Your task to perform on an android device: turn on improve location accuracy Image 0: 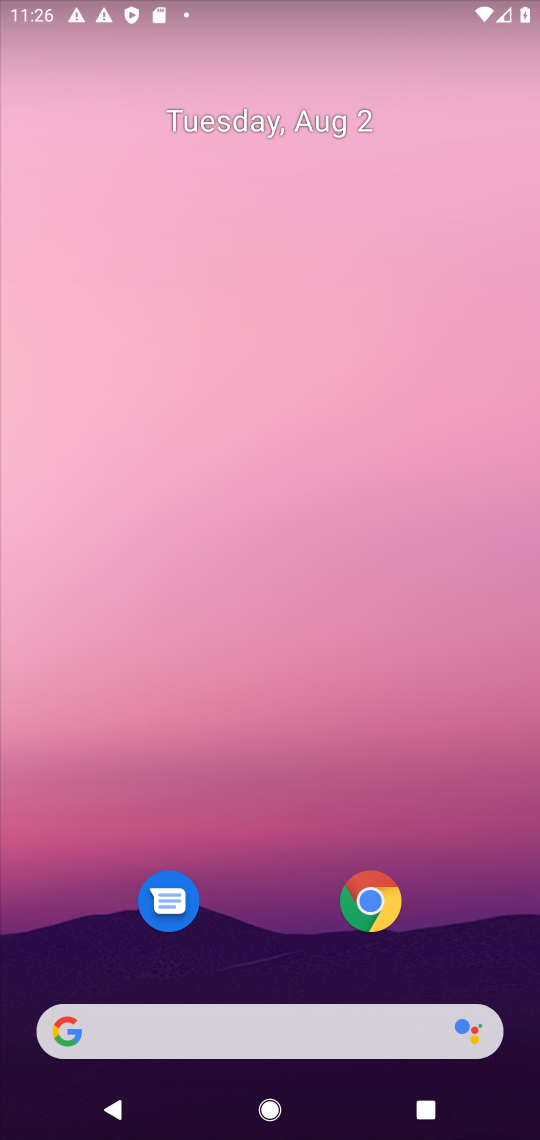
Step 0: drag from (511, 1027) to (430, 128)
Your task to perform on an android device: turn on improve location accuracy Image 1: 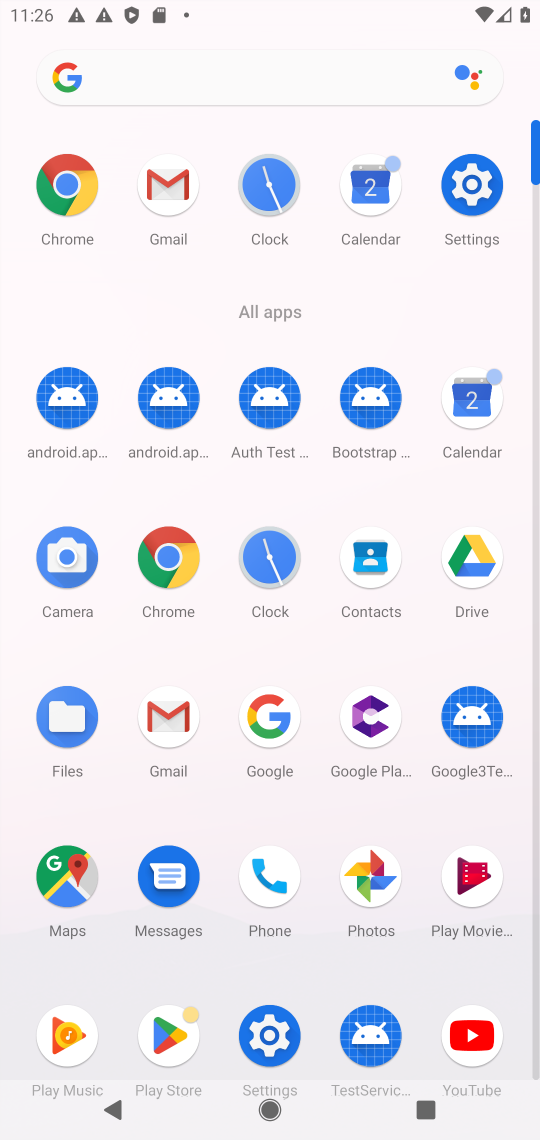
Step 1: click (270, 1014)
Your task to perform on an android device: turn on improve location accuracy Image 2: 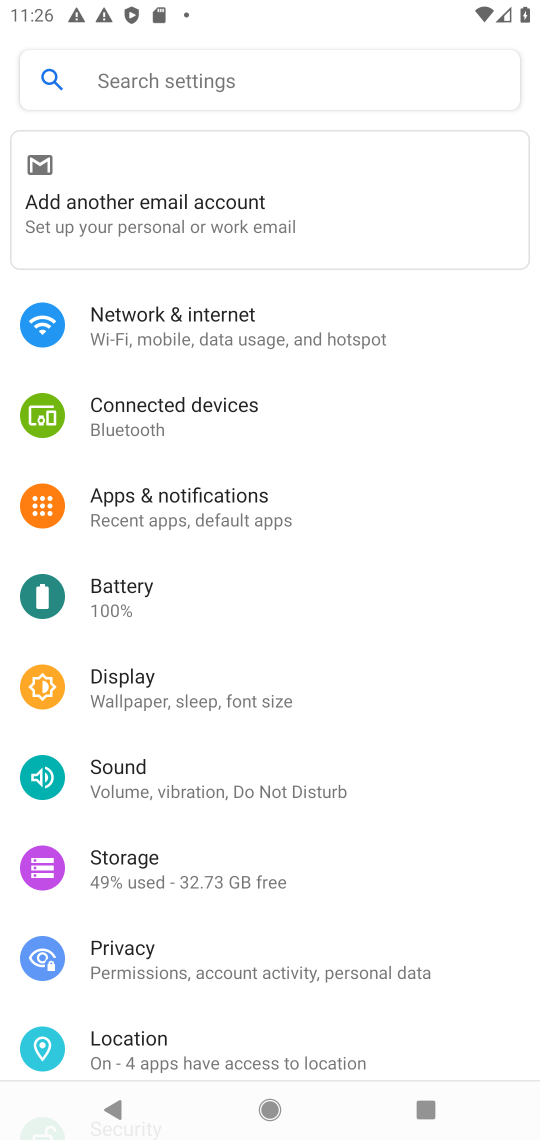
Step 2: click (105, 1030)
Your task to perform on an android device: turn on improve location accuracy Image 3: 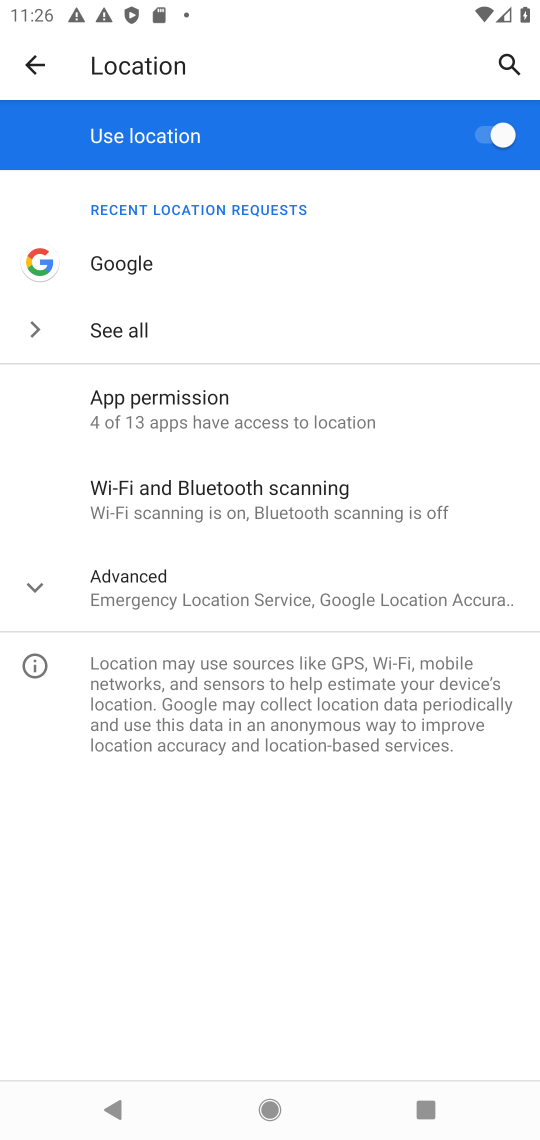
Step 3: click (31, 597)
Your task to perform on an android device: turn on improve location accuracy Image 4: 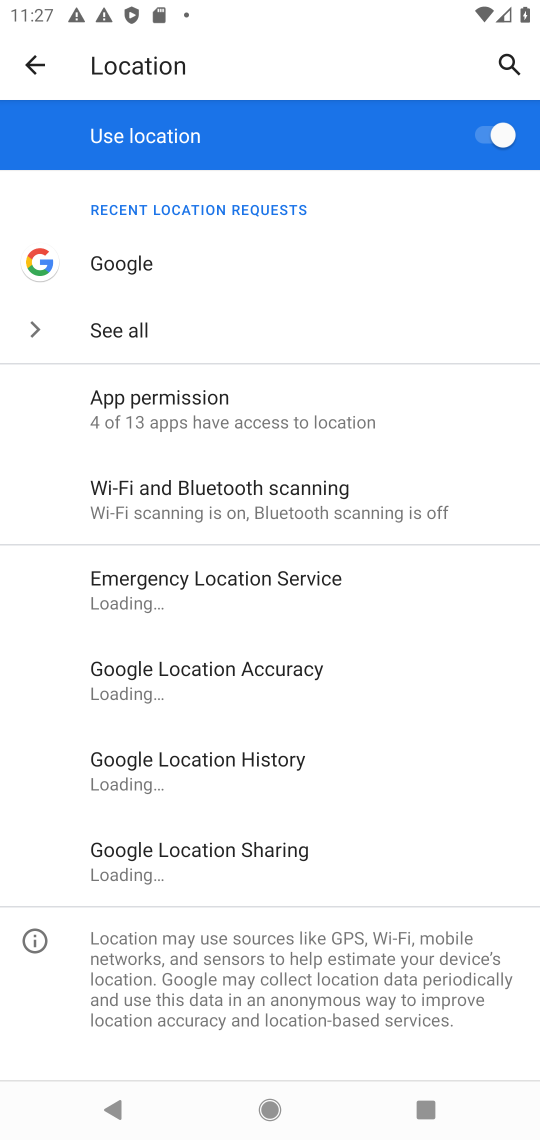
Step 4: click (173, 670)
Your task to perform on an android device: turn on improve location accuracy Image 5: 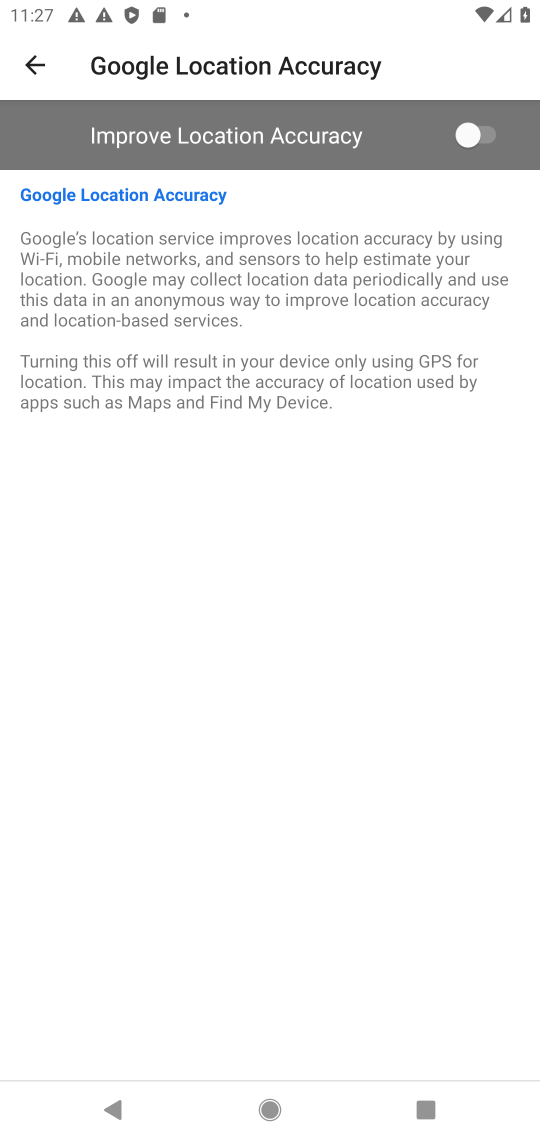
Step 5: click (482, 119)
Your task to perform on an android device: turn on improve location accuracy Image 6: 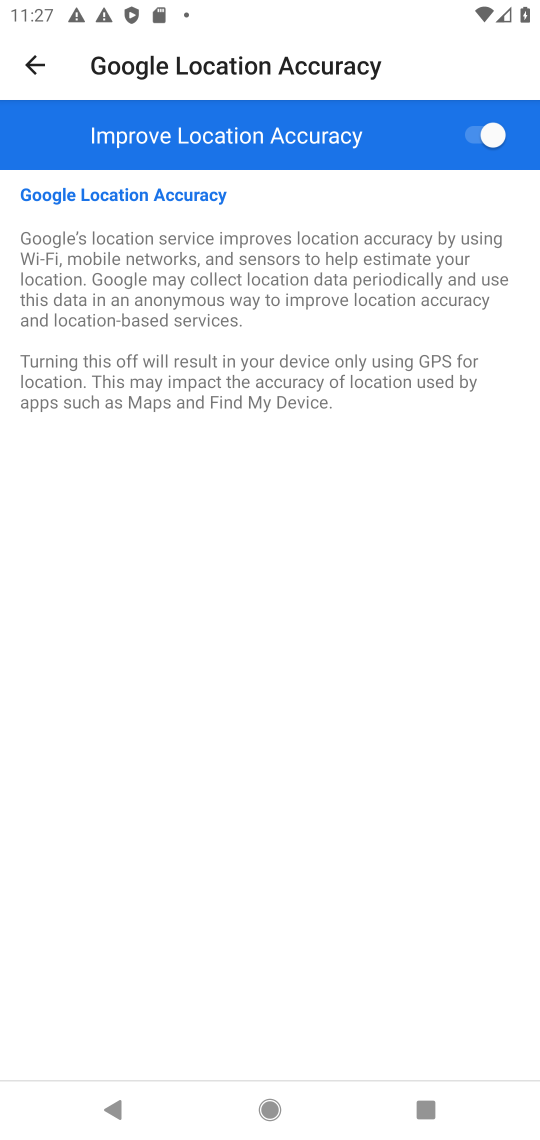
Step 6: task complete